Your task to perform on an android device: Go to privacy settings Image 0: 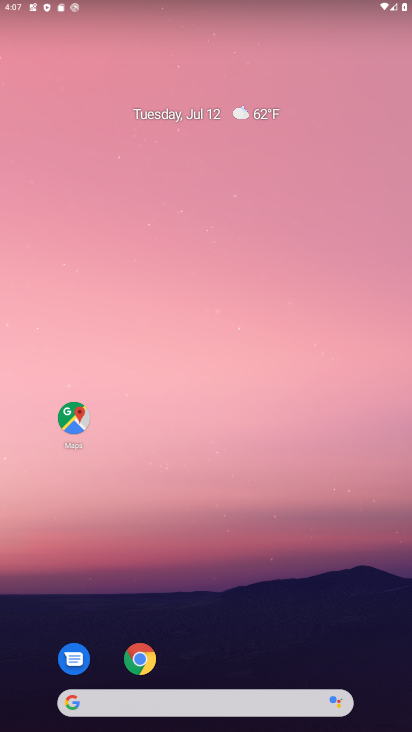
Step 0: drag from (195, 664) to (201, 185)
Your task to perform on an android device: Go to privacy settings Image 1: 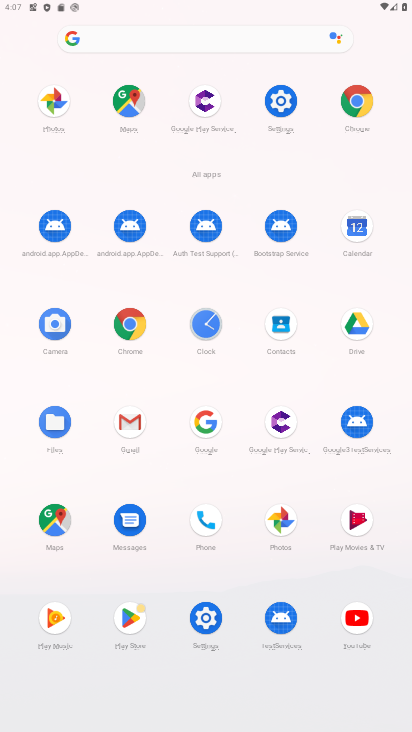
Step 1: click (281, 96)
Your task to perform on an android device: Go to privacy settings Image 2: 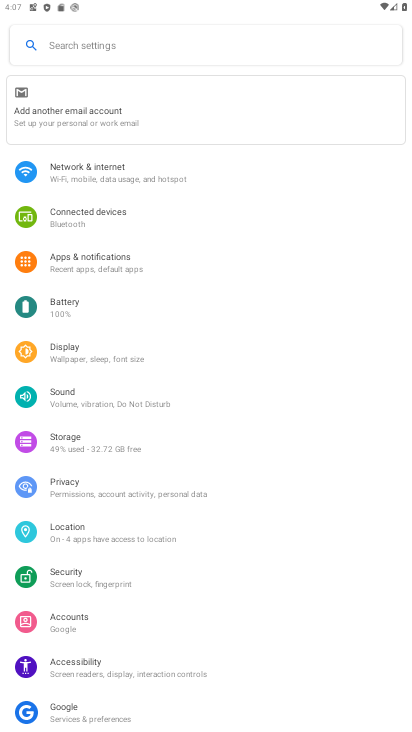
Step 2: click (86, 490)
Your task to perform on an android device: Go to privacy settings Image 3: 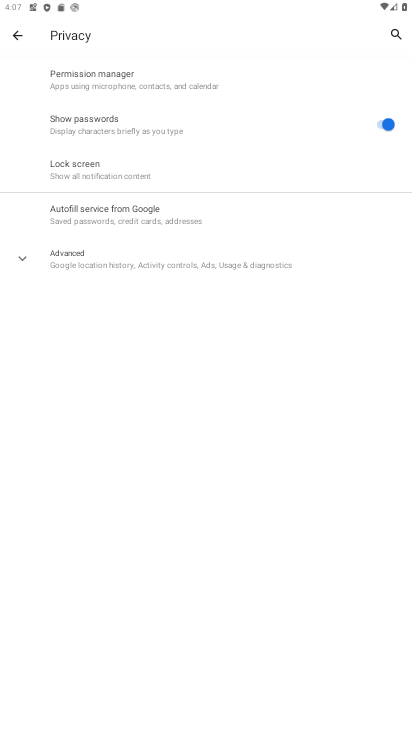
Step 3: click (26, 252)
Your task to perform on an android device: Go to privacy settings Image 4: 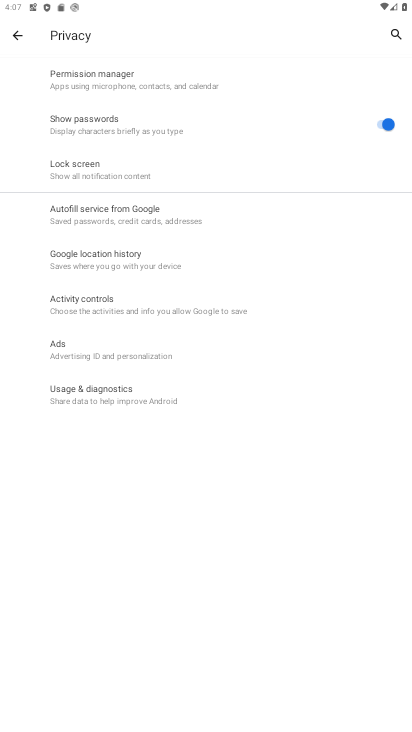
Step 4: task complete